Your task to perform on an android device: Open settings Image 0: 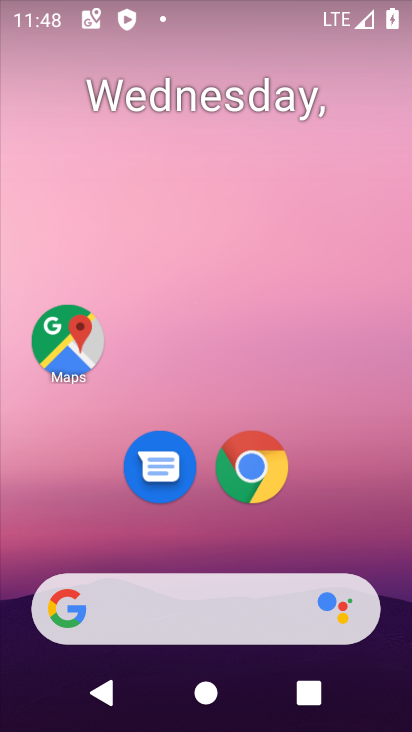
Step 0: drag from (210, 602) to (362, 100)
Your task to perform on an android device: Open settings Image 1: 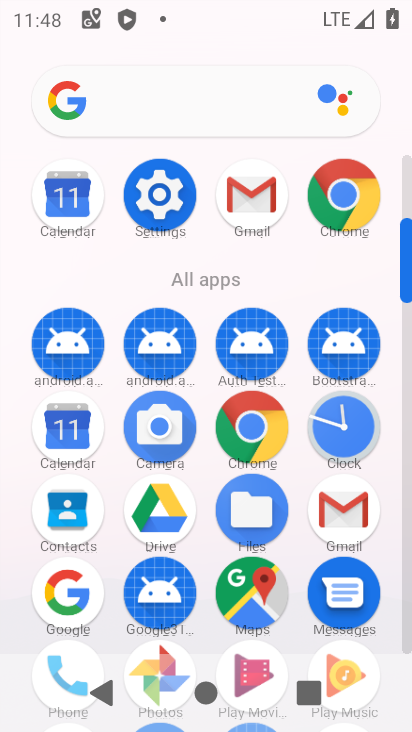
Step 1: click (168, 190)
Your task to perform on an android device: Open settings Image 2: 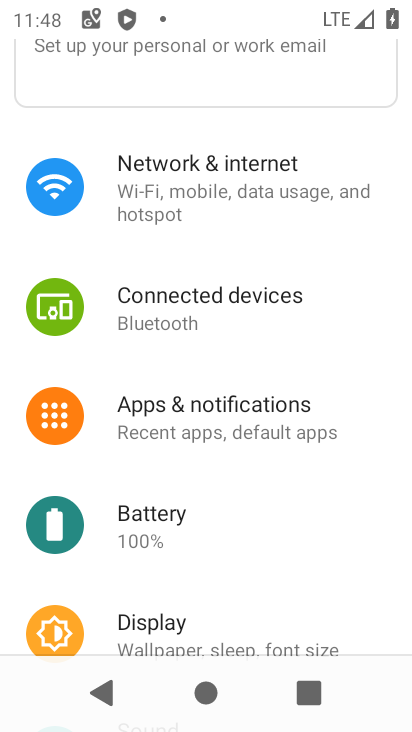
Step 2: task complete